Your task to perform on an android device: install app "Fetch Rewards" Image 0: 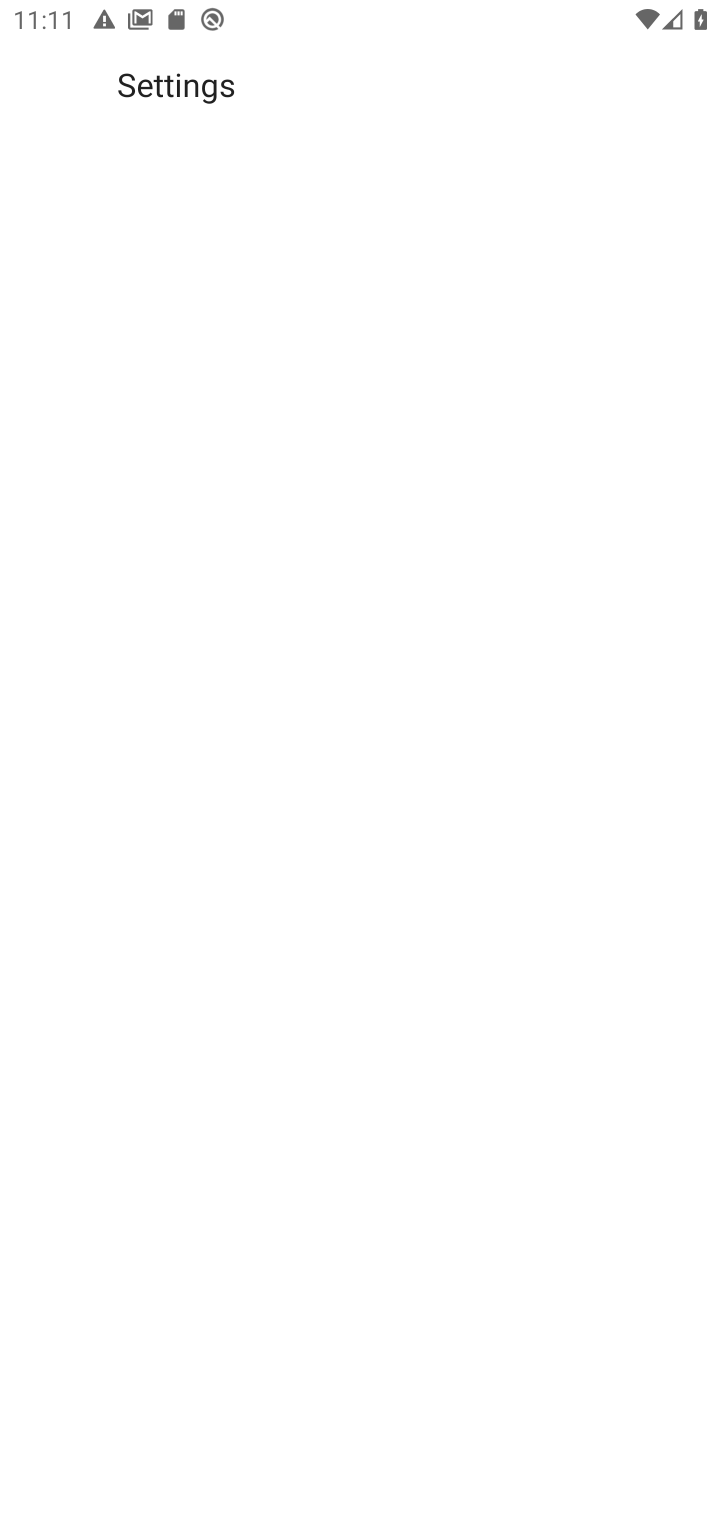
Step 0: drag from (268, 17) to (617, 394)
Your task to perform on an android device: install app "Fetch Rewards" Image 1: 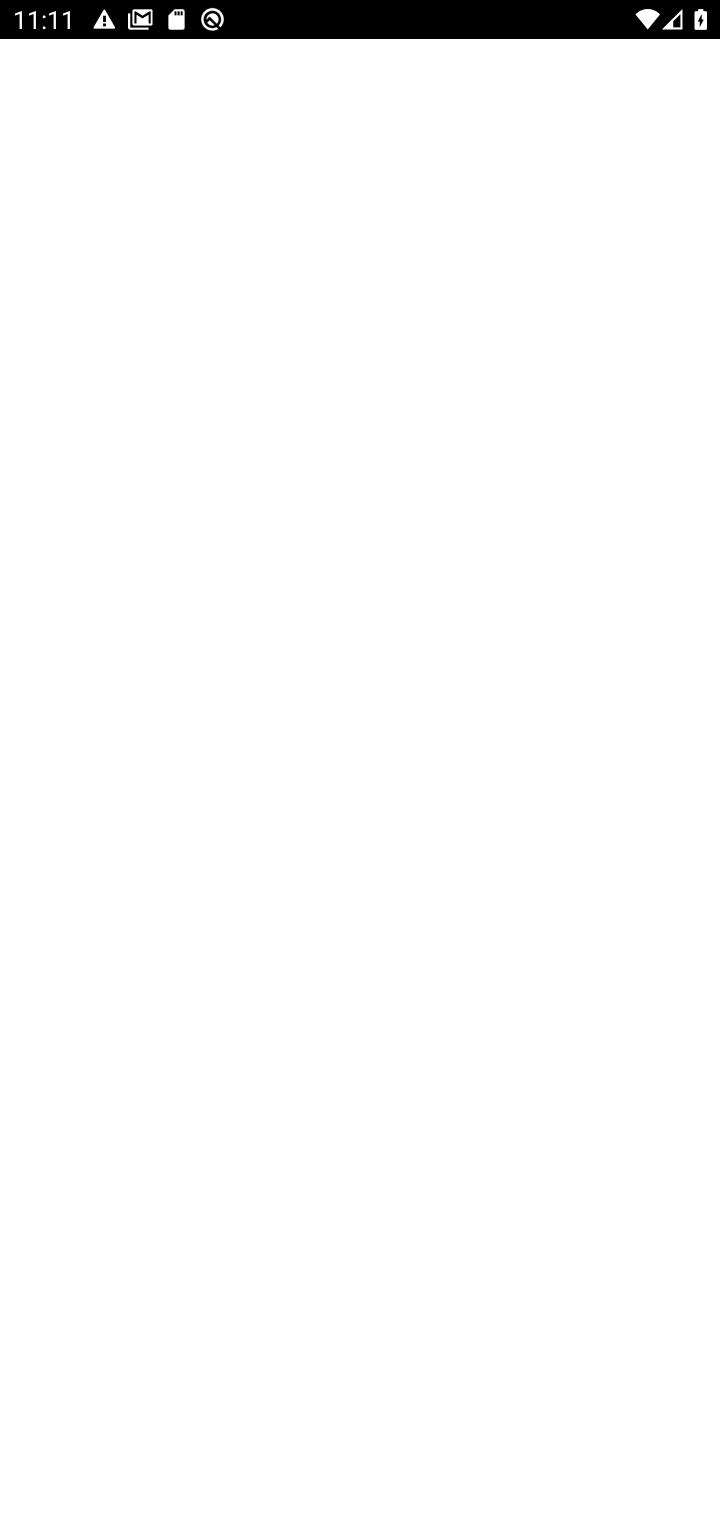
Step 1: press home button
Your task to perform on an android device: install app "Fetch Rewards" Image 2: 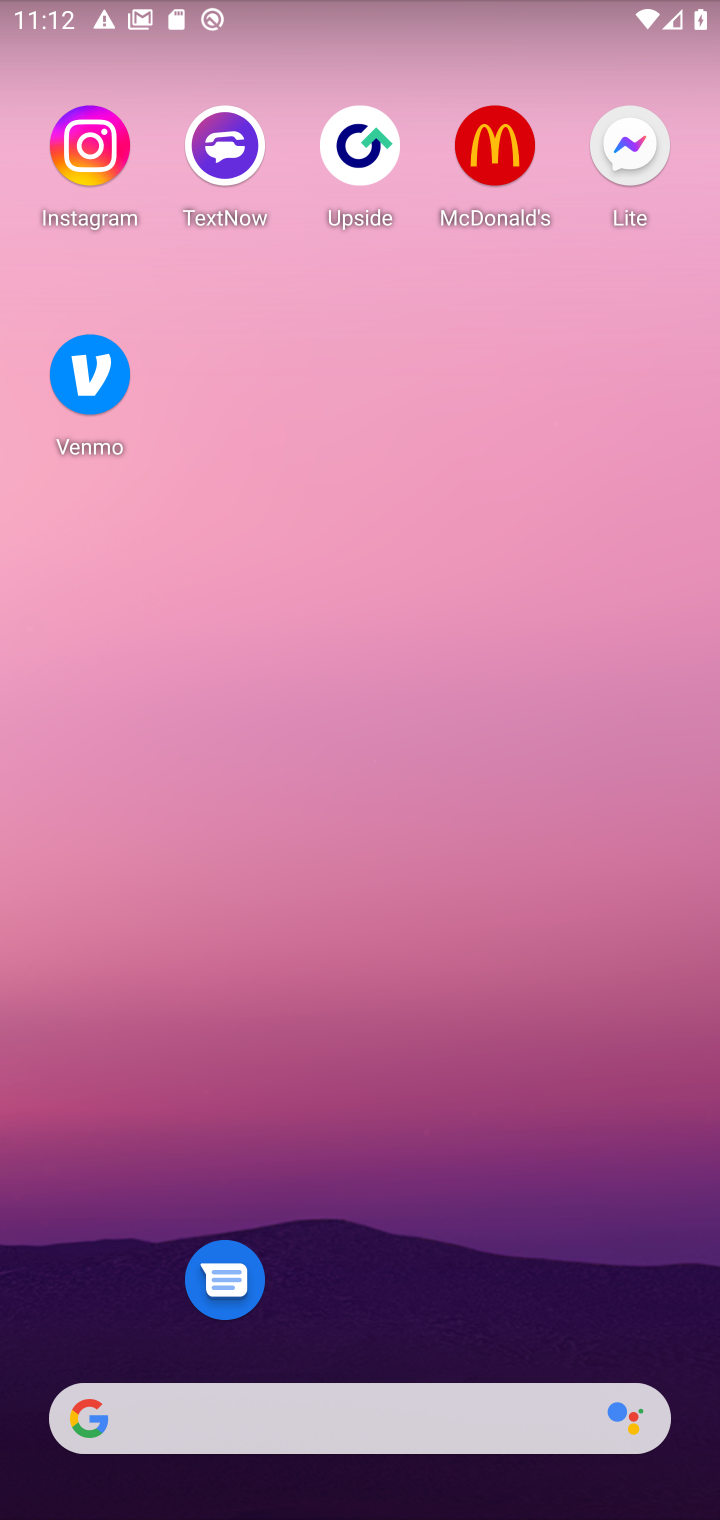
Step 2: drag from (311, 1351) to (133, 68)
Your task to perform on an android device: install app "Fetch Rewards" Image 3: 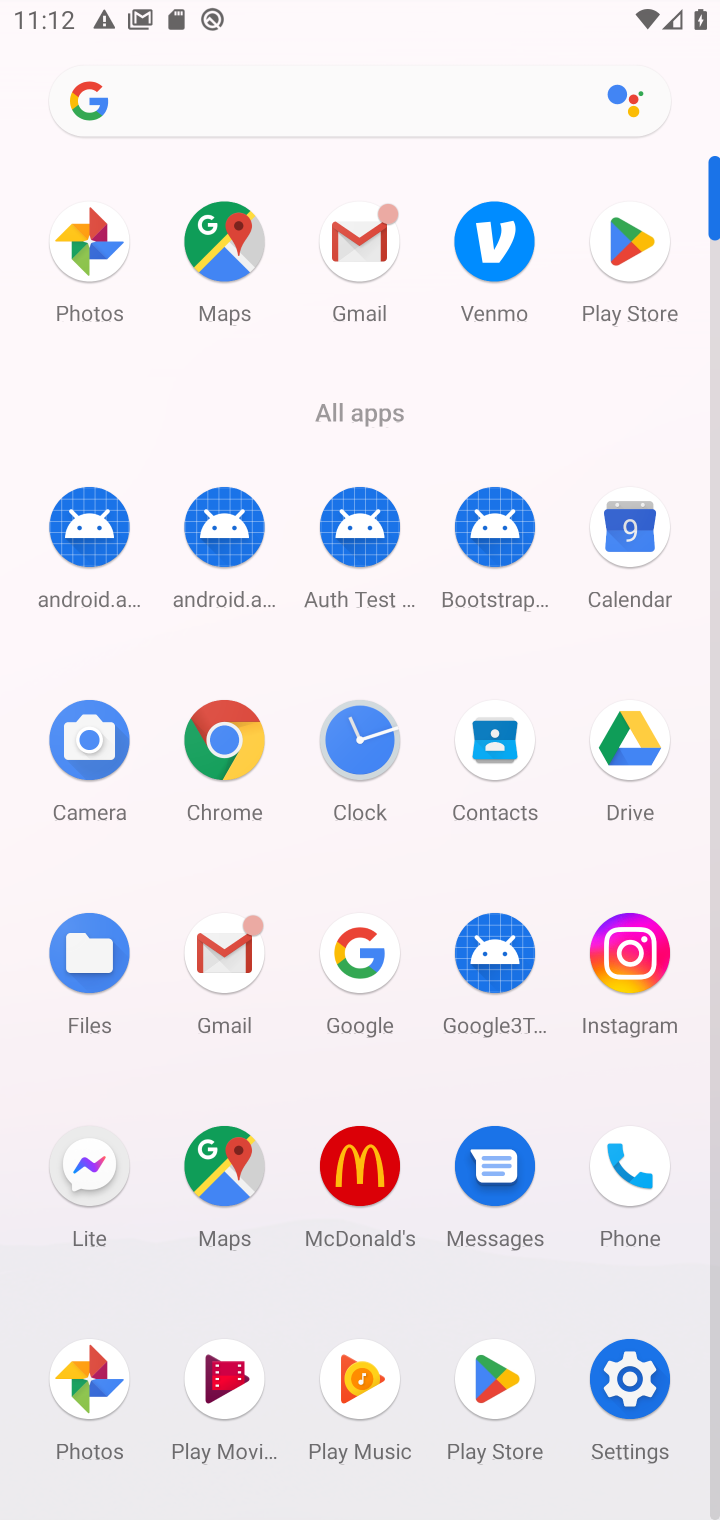
Step 3: click (502, 1405)
Your task to perform on an android device: install app "Fetch Rewards" Image 4: 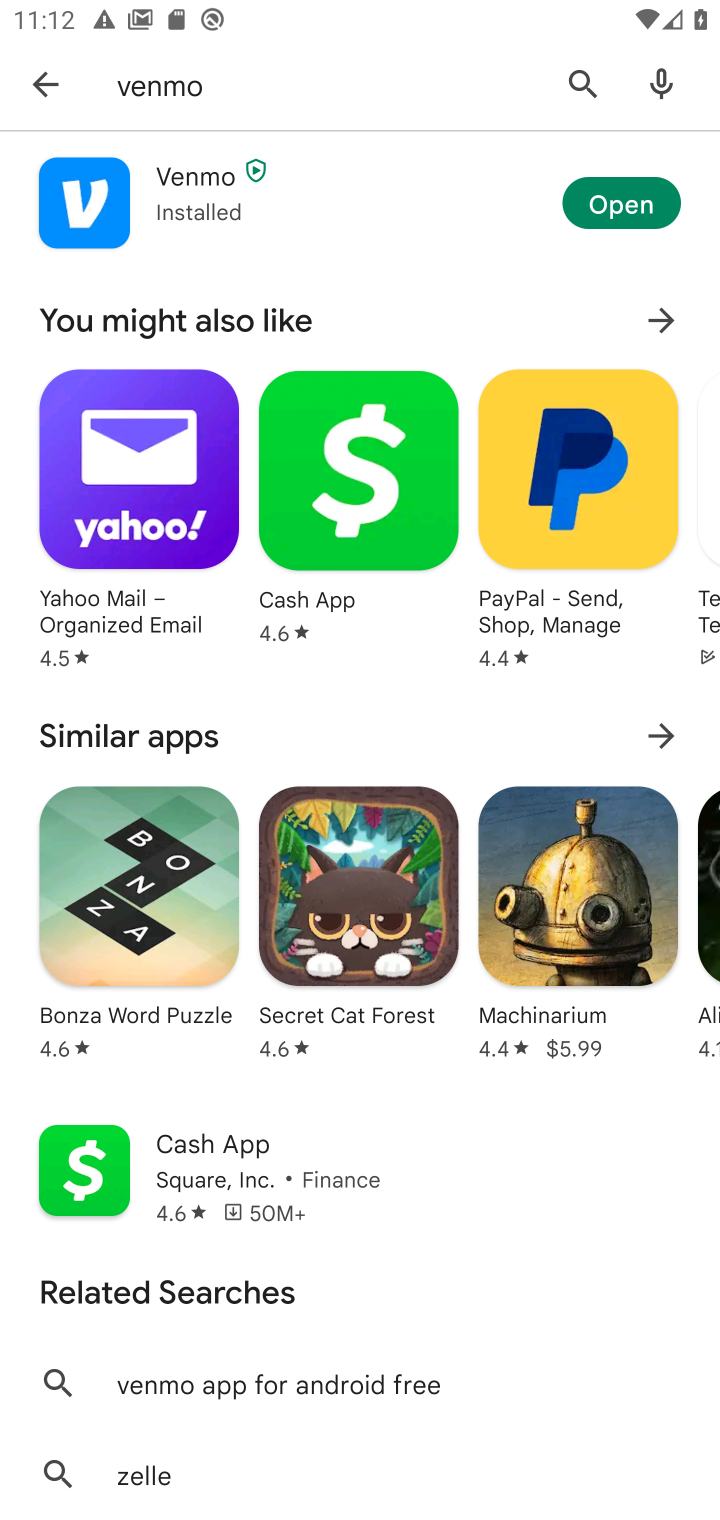
Step 4: click (58, 79)
Your task to perform on an android device: install app "Fetch Rewards" Image 5: 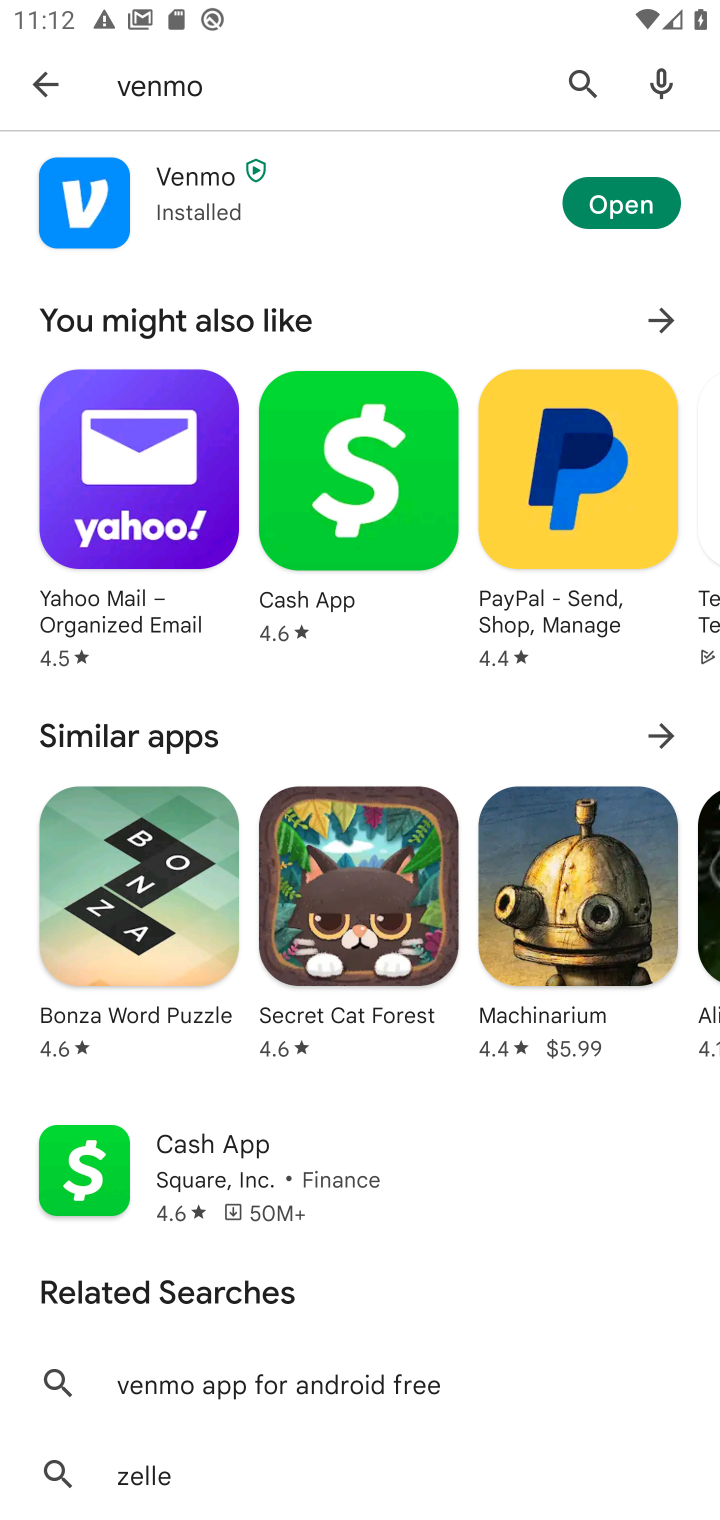
Step 5: click (15, 89)
Your task to perform on an android device: install app "Fetch Rewards" Image 6: 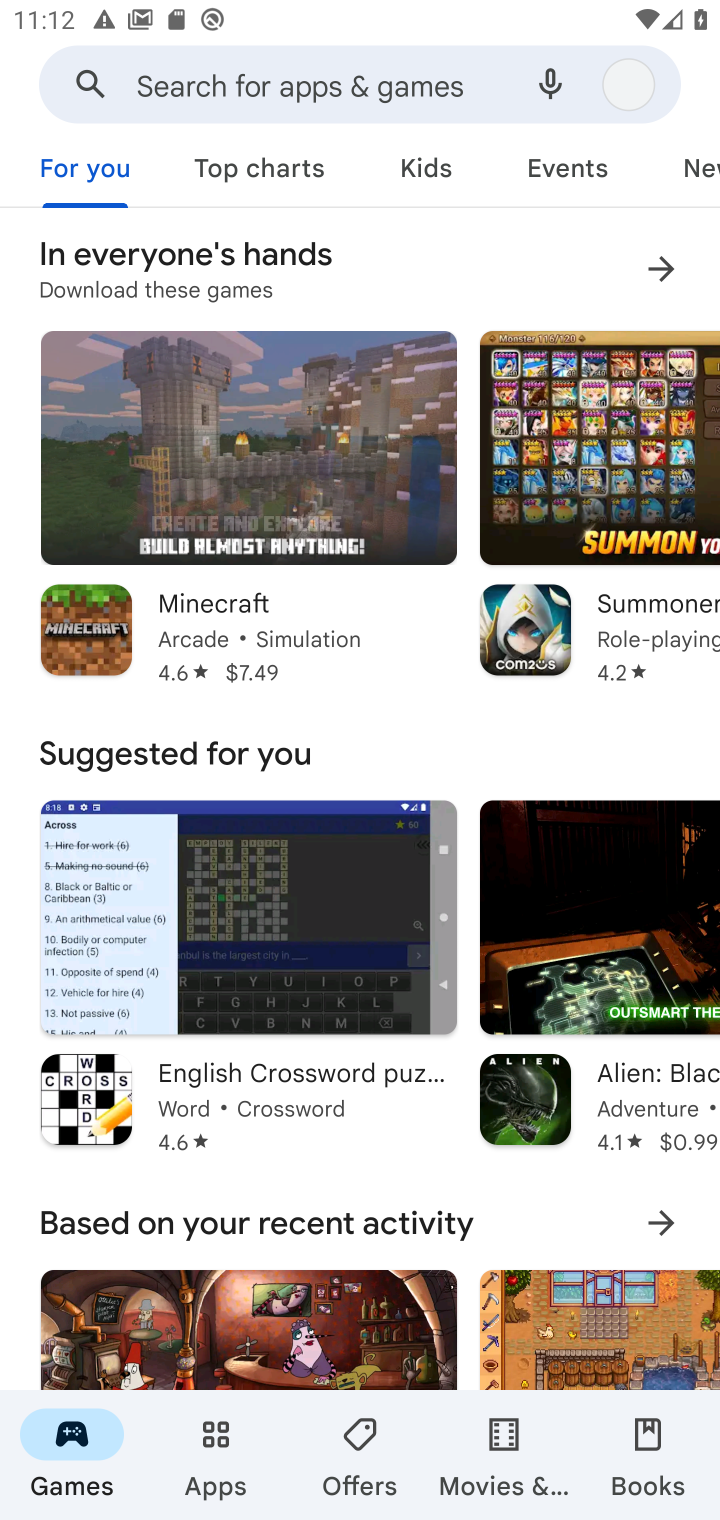
Step 6: click (156, 91)
Your task to perform on an android device: install app "Fetch Rewards" Image 7: 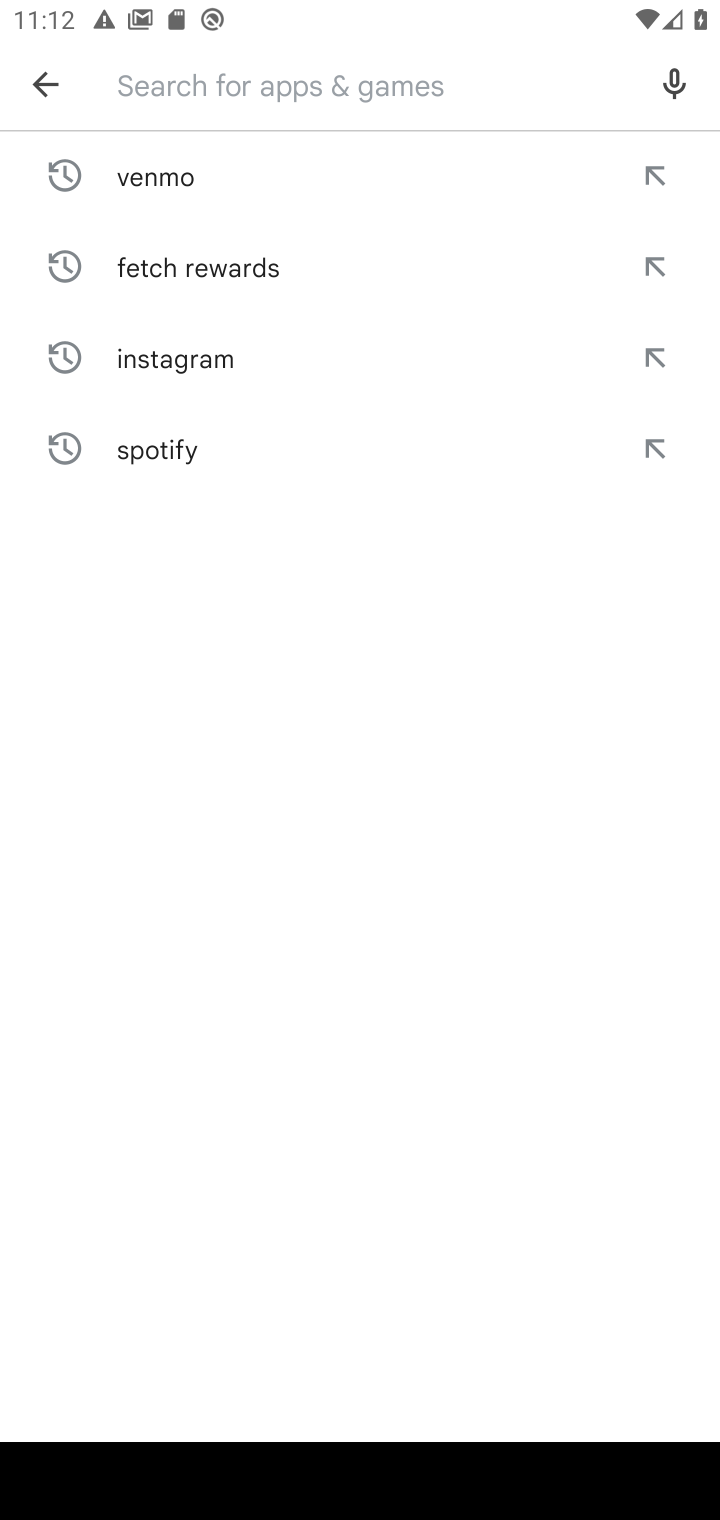
Step 7: type "Fetch Rewards"
Your task to perform on an android device: install app "Fetch Rewards" Image 8: 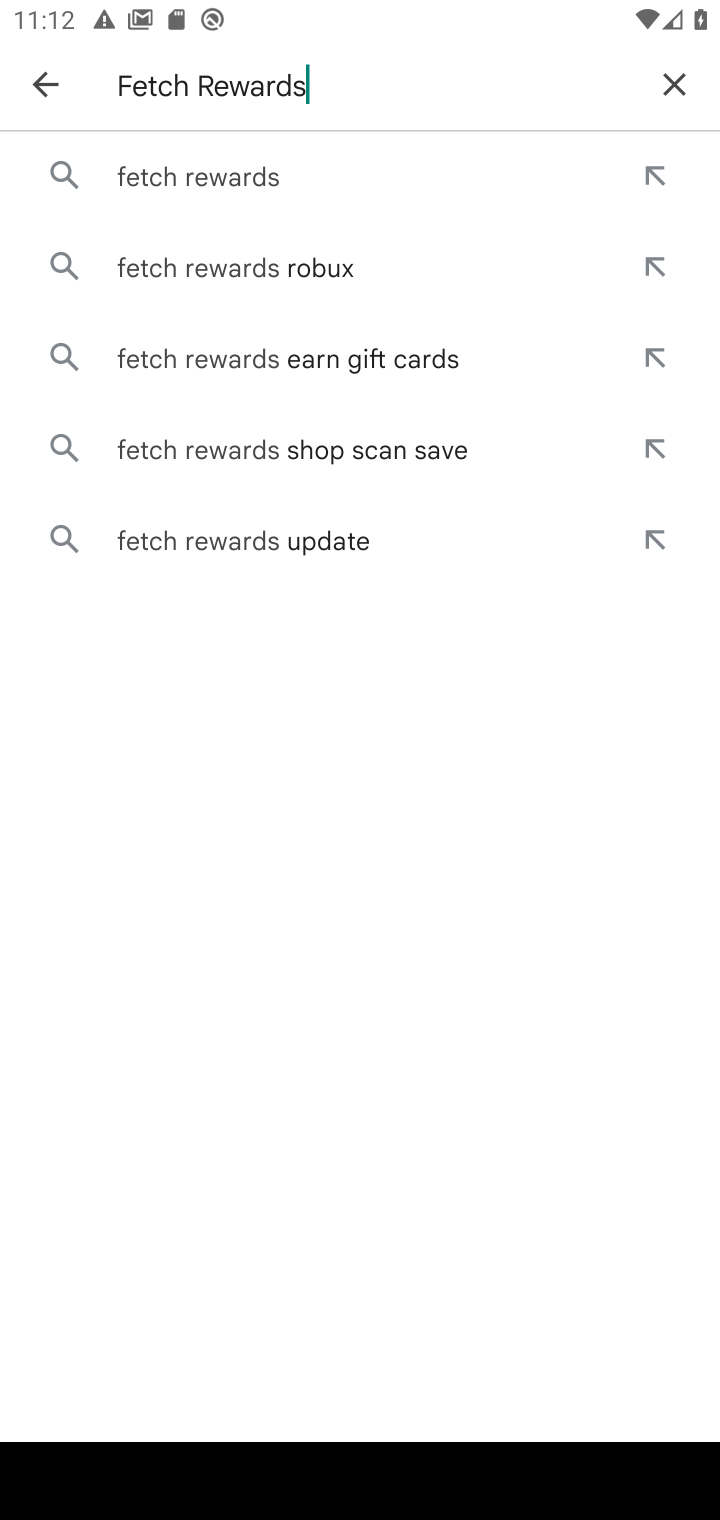
Step 8: type ""
Your task to perform on an android device: install app "Fetch Rewards" Image 9: 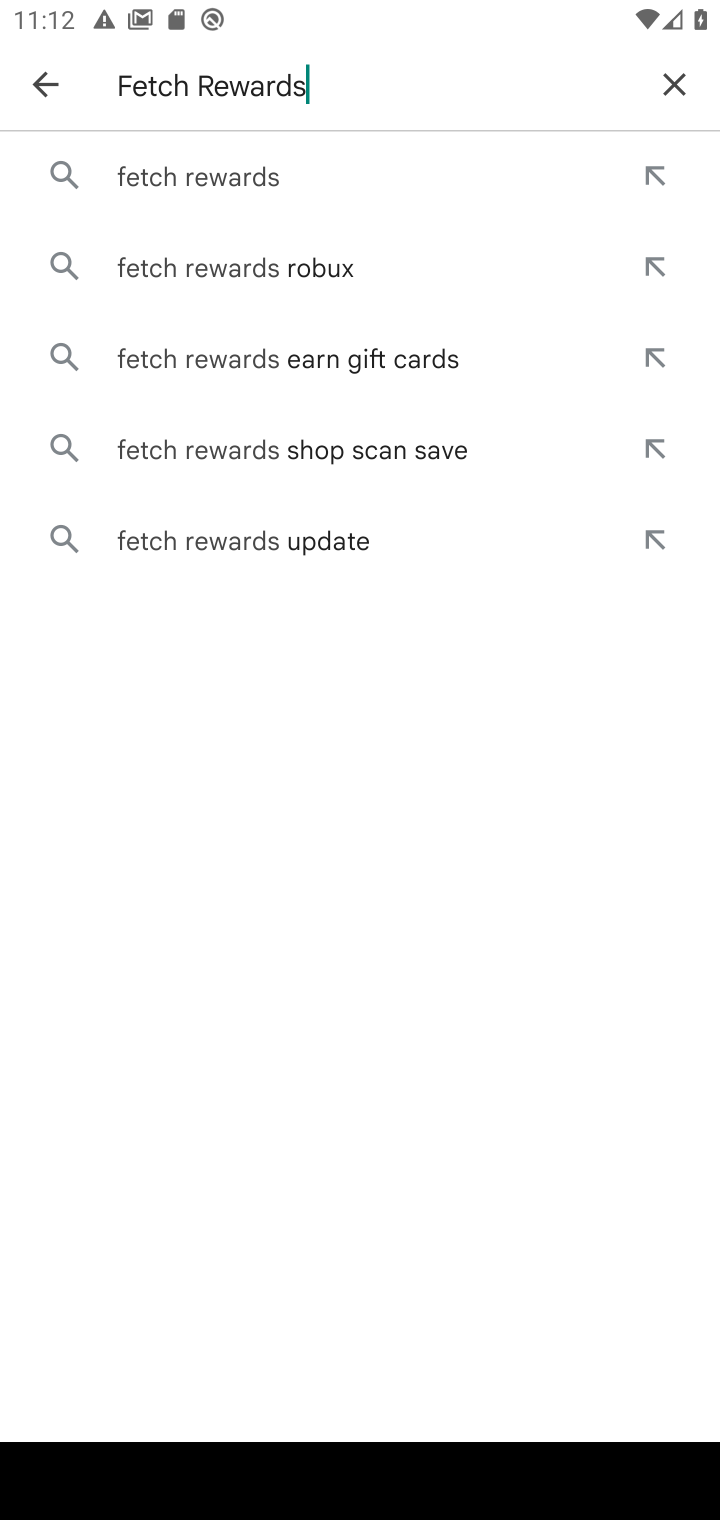
Step 9: click (229, 160)
Your task to perform on an android device: install app "Fetch Rewards" Image 10: 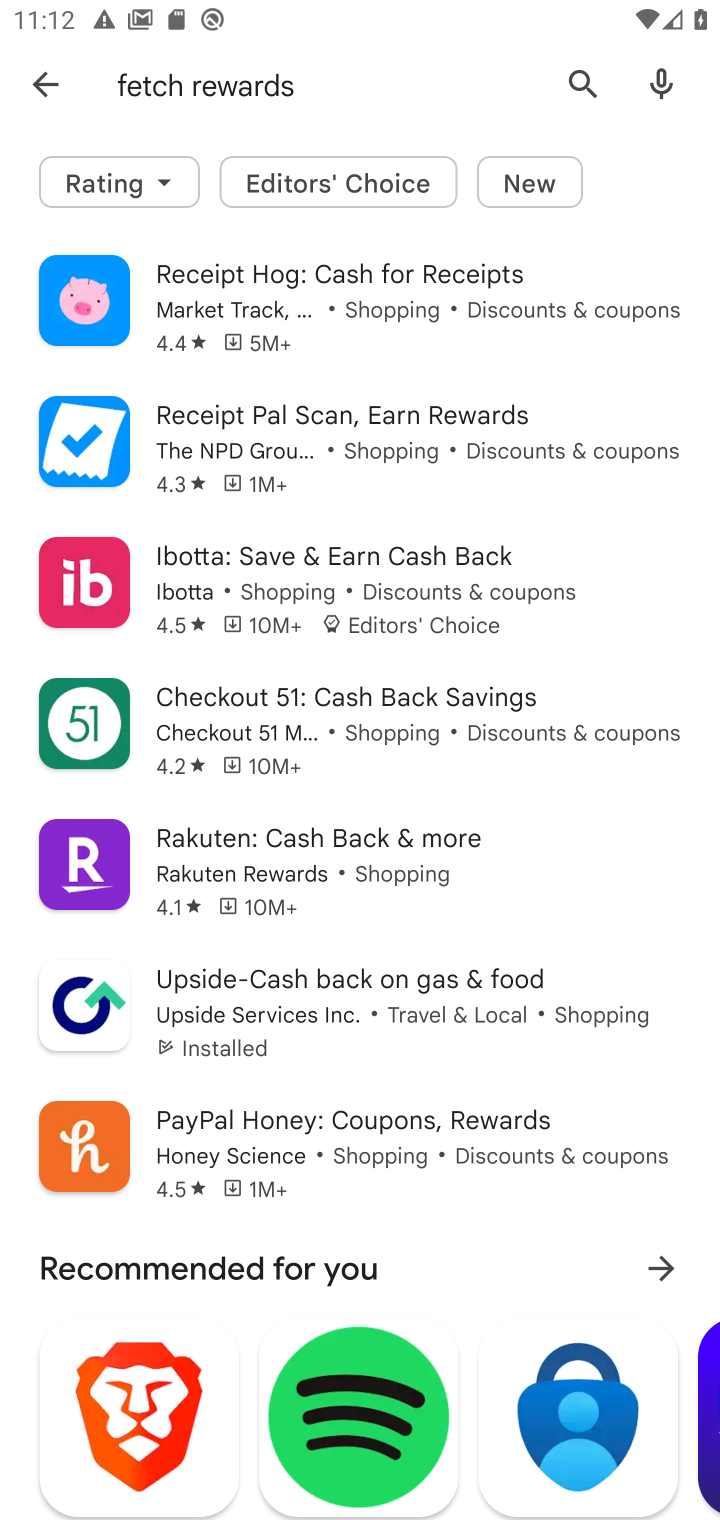
Step 10: task complete